Your task to perform on an android device: create a new album in the google photos Image 0: 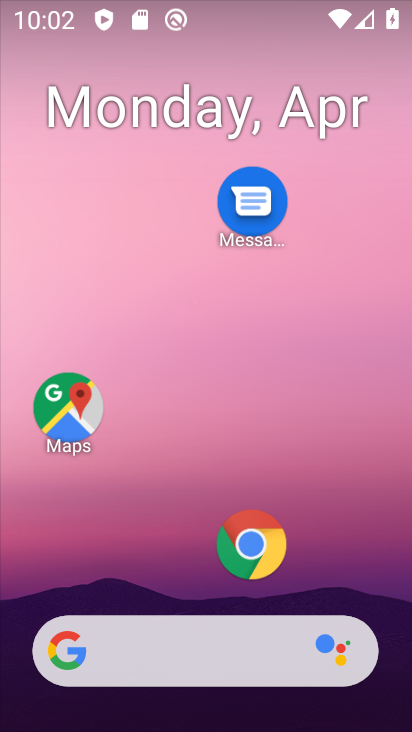
Step 0: drag from (198, 586) to (230, 41)
Your task to perform on an android device: create a new album in the google photos Image 1: 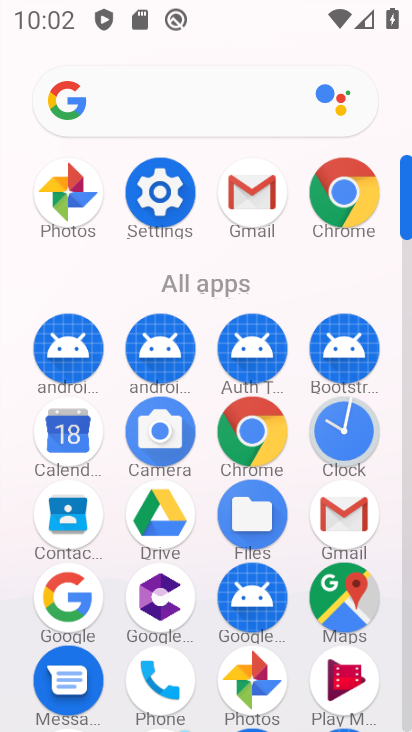
Step 1: drag from (205, 630) to (233, 158)
Your task to perform on an android device: create a new album in the google photos Image 2: 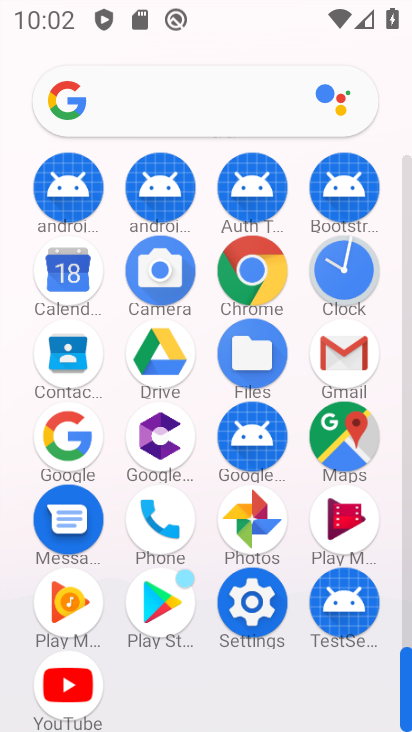
Step 2: click (246, 511)
Your task to perform on an android device: create a new album in the google photos Image 3: 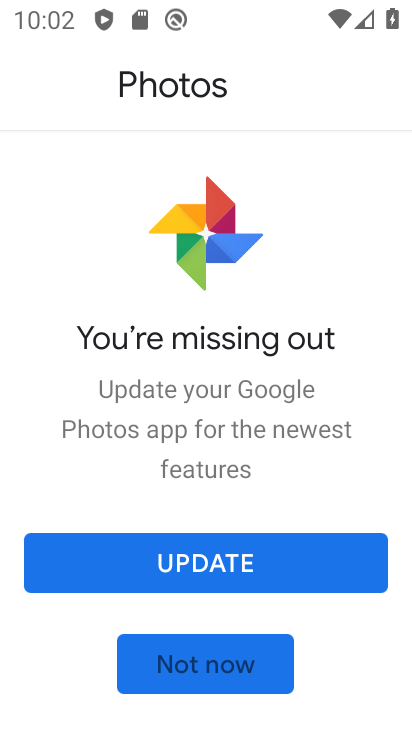
Step 3: click (212, 565)
Your task to perform on an android device: create a new album in the google photos Image 4: 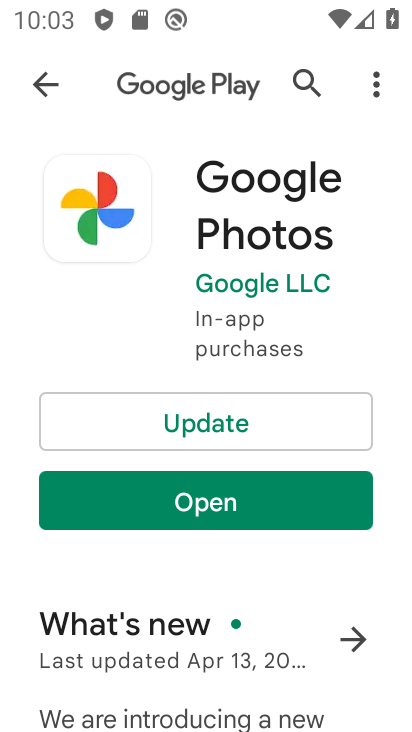
Step 4: click (213, 422)
Your task to perform on an android device: create a new album in the google photos Image 5: 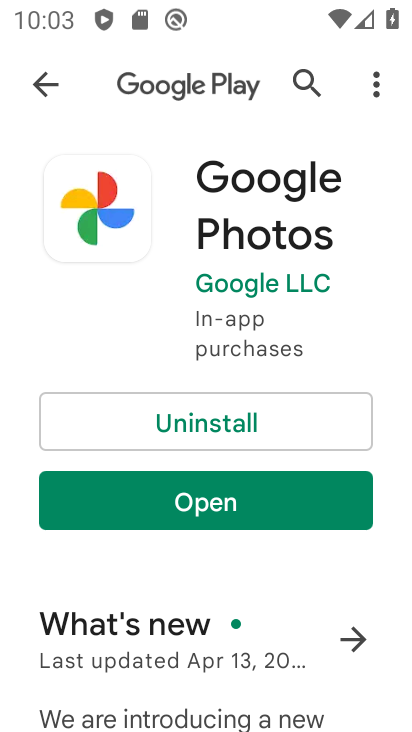
Step 5: click (212, 507)
Your task to perform on an android device: create a new album in the google photos Image 6: 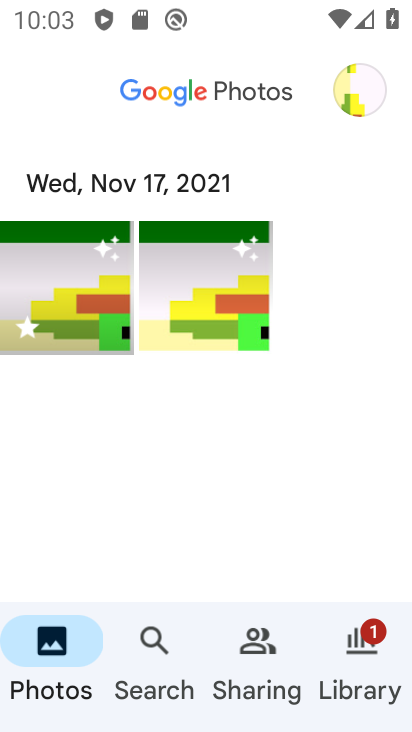
Step 6: click (253, 645)
Your task to perform on an android device: create a new album in the google photos Image 7: 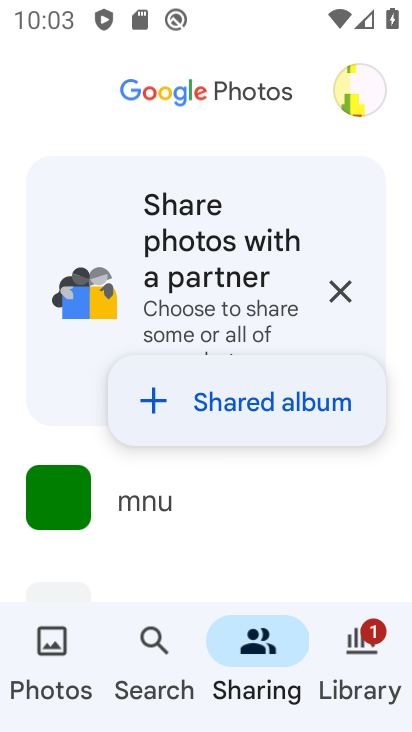
Step 7: click (350, 635)
Your task to perform on an android device: create a new album in the google photos Image 8: 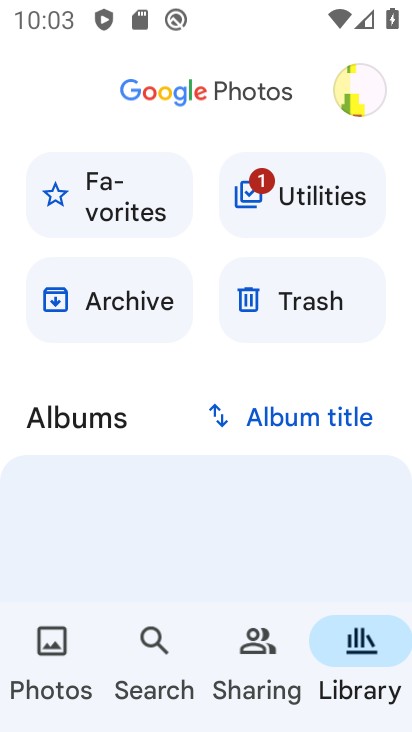
Step 8: click (258, 652)
Your task to perform on an android device: create a new album in the google photos Image 9: 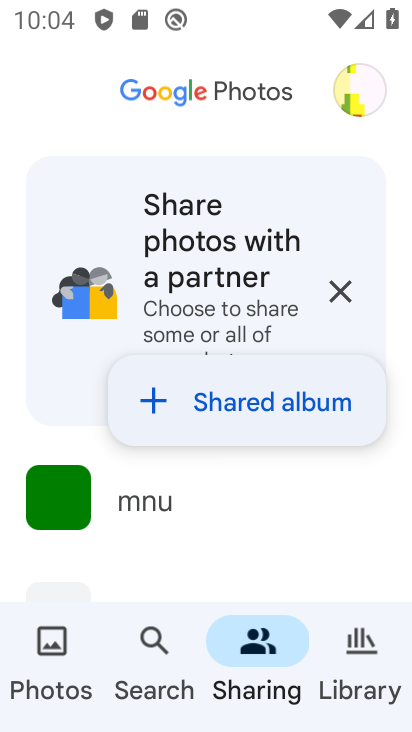
Step 9: click (172, 401)
Your task to perform on an android device: create a new album in the google photos Image 10: 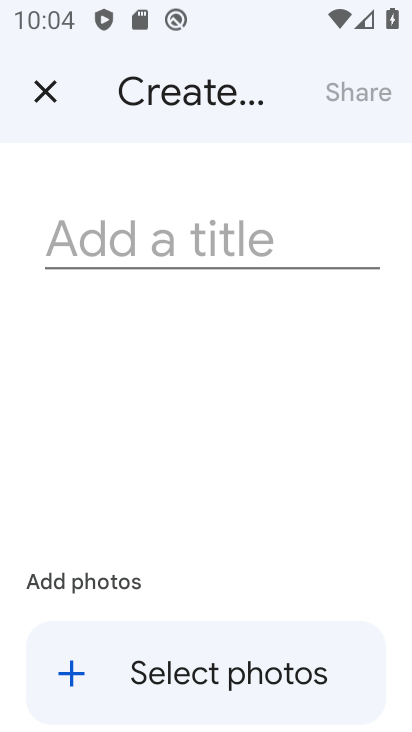
Step 10: click (77, 674)
Your task to perform on an android device: create a new album in the google photos Image 11: 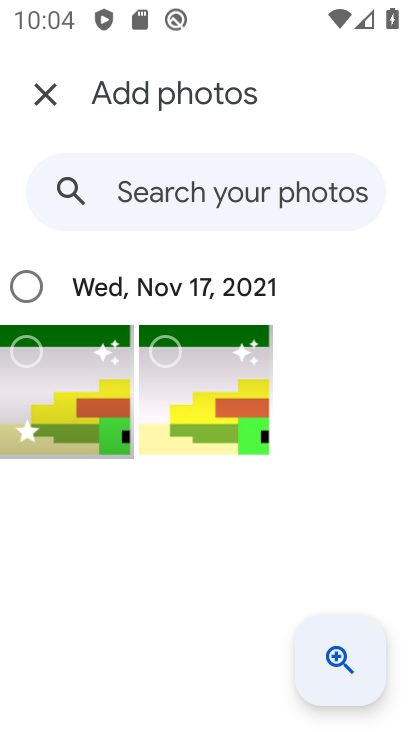
Step 11: click (28, 285)
Your task to perform on an android device: create a new album in the google photos Image 12: 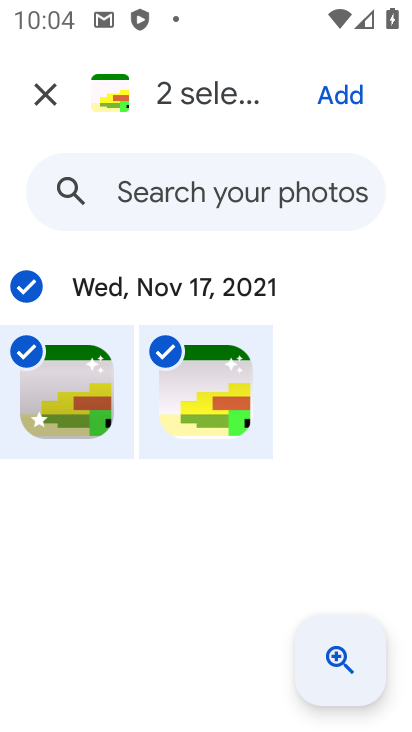
Step 12: click (351, 91)
Your task to perform on an android device: create a new album in the google photos Image 13: 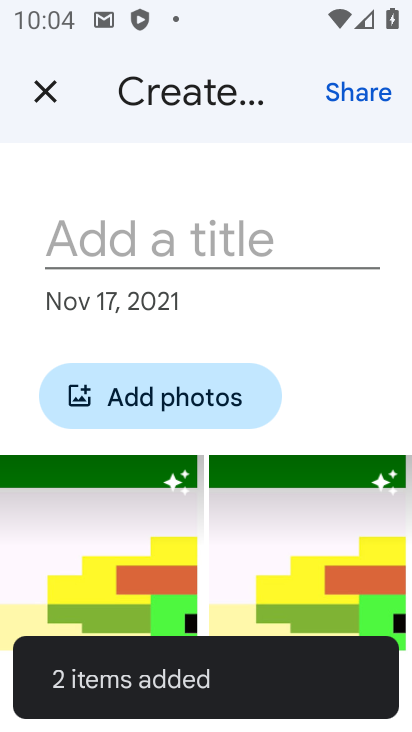
Step 13: click (154, 240)
Your task to perform on an android device: create a new album in the google photos Image 14: 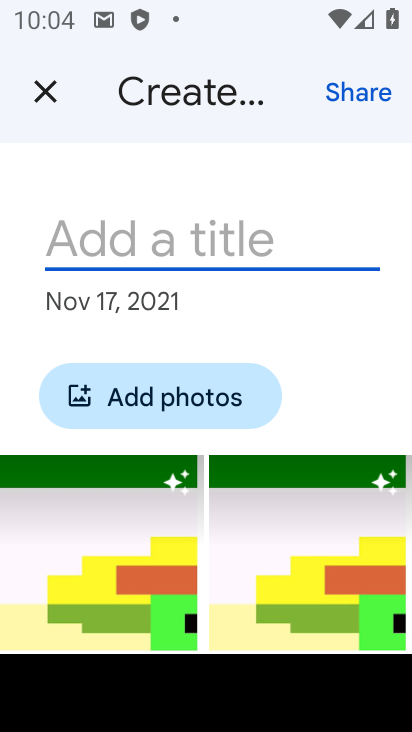
Step 14: type "jfhgdft"
Your task to perform on an android device: create a new album in the google photos Image 15: 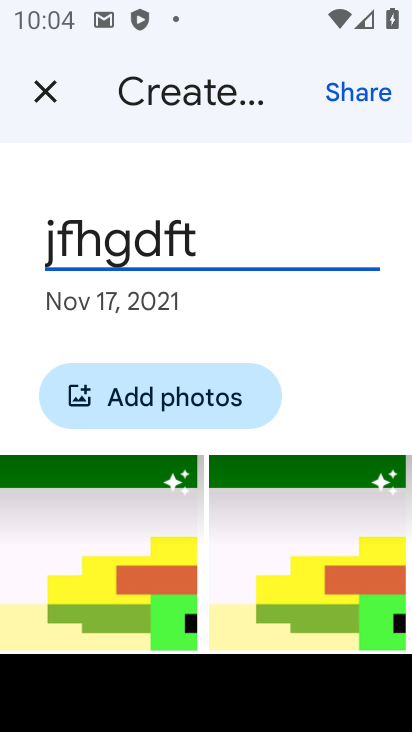
Step 15: click (206, 168)
Your task to perform on an android device: create a new album in the google photos Image 16: 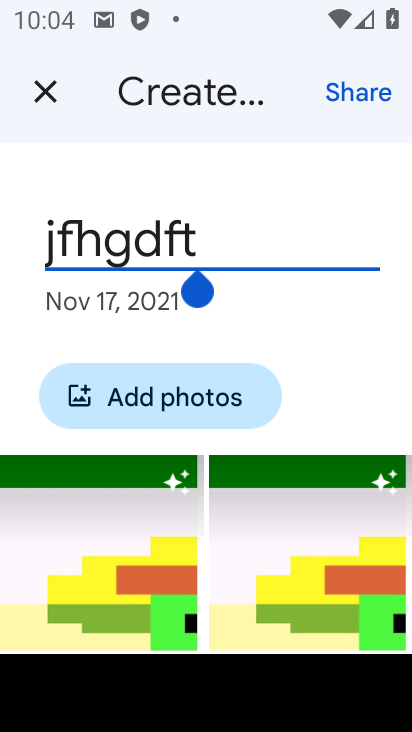
Step 16: click (315, 416)
Your task to perform on an android device: create a new album in the google photos Image 17: 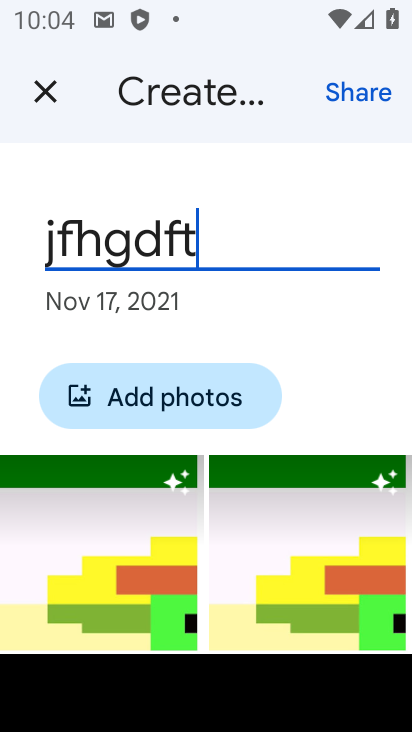
Step 17: click (365, 407)
Your task to perform on an android device: create a new album in the google photos Image 18: 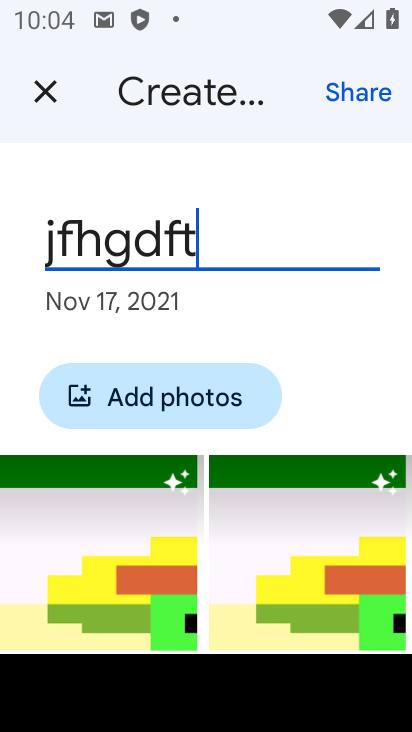
Step 18: task complete